Your task to perform on an android device: create a new album in the google photos Image 0: 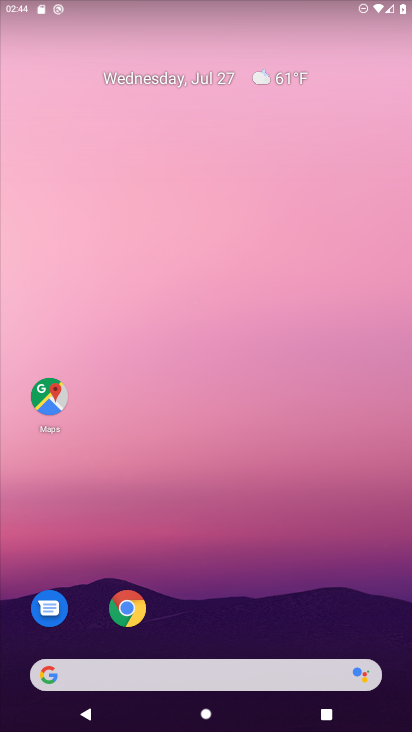
Step 0: drag from (274, 605) to (232, 79)
Your task to perform on an android device: create a new album in the google photos Image 1: 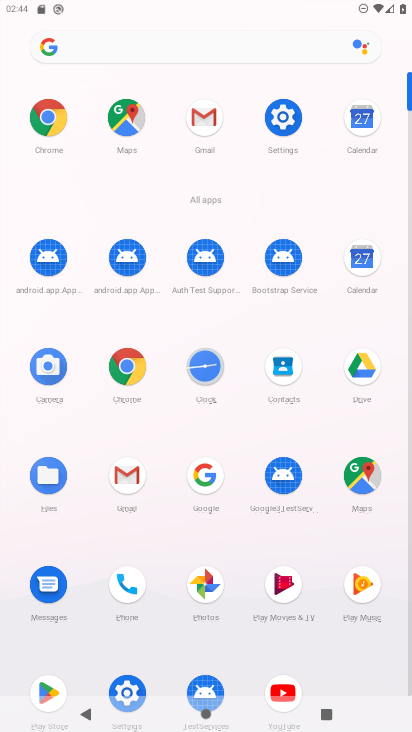
Step 1: click (209, 574)
Your task to perform on an android device: create a new album in the google photos Image 2: 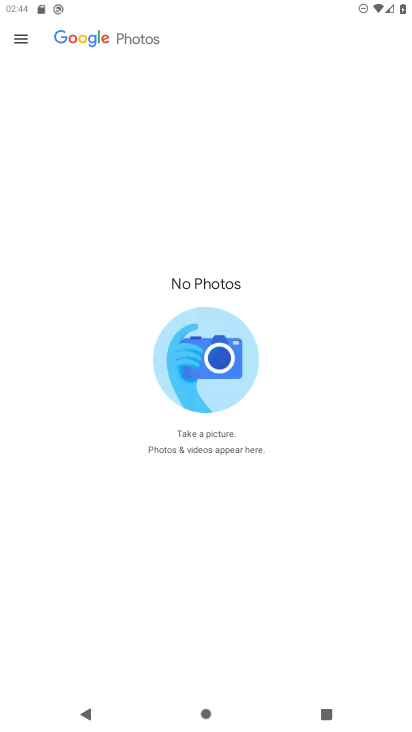
Step 2: click (26, 37)
Your task to perform on an android device: create a new album in the google photos Image 3: 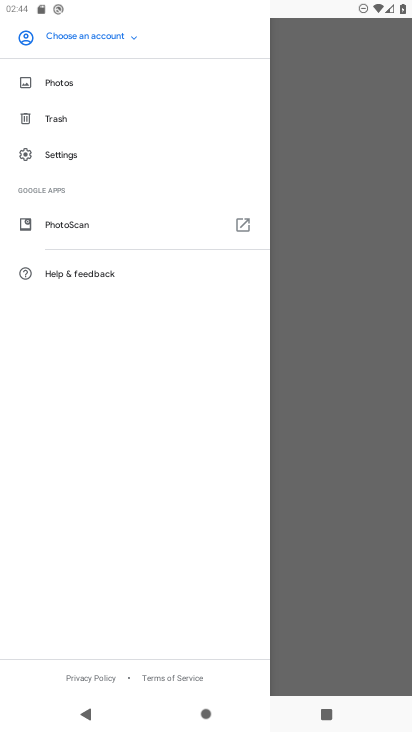
Step 3: click (51, 81)
Your task to perform on an android device: create a new album in the google photos Image 4: 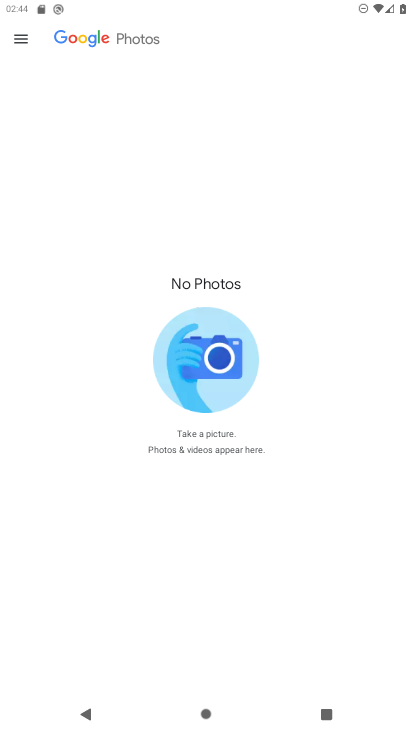
Step 4: click (11, 40)
Your task to perform on an android device: create a new album in the google photos Image 5: 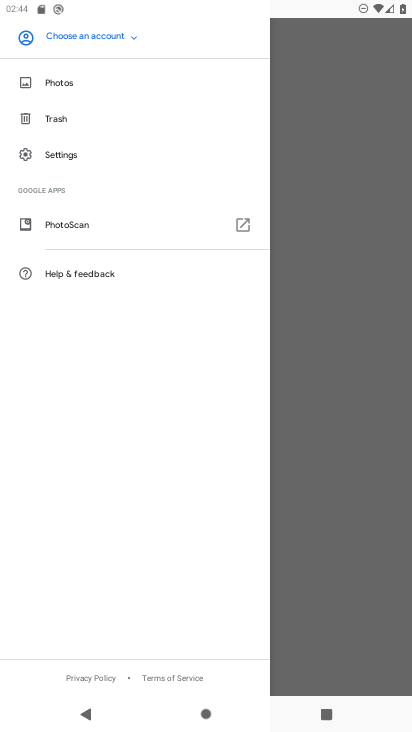
Step 5: click (301, 352)
Your task to perform on an android device: create a new album in the google photos Image 6: 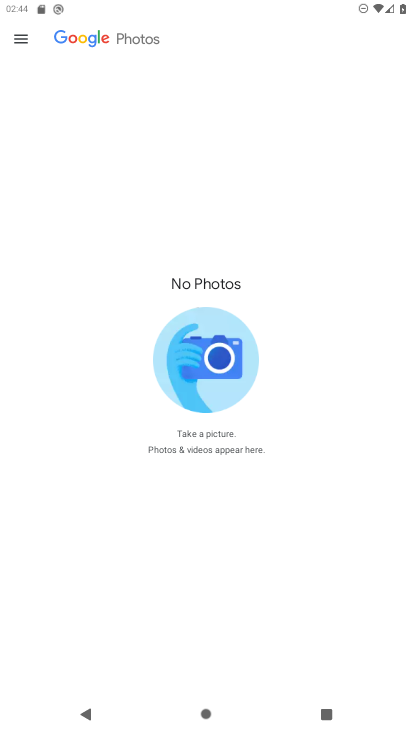
Step 6: task complete